Your task to perform on an android device: check android version Image 0: 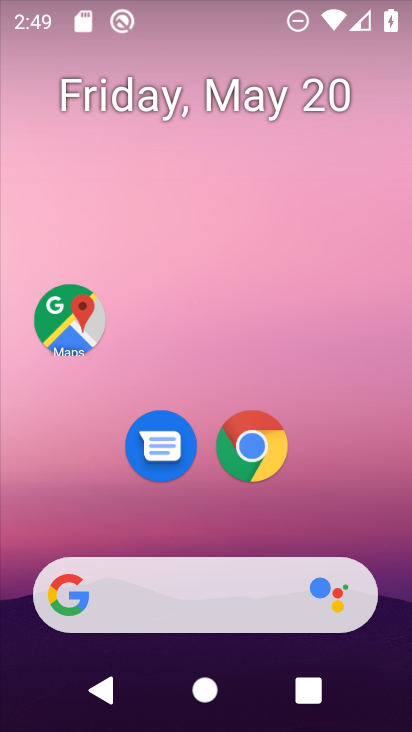
Step 0: drag from (368, 527) to (310, 0)
Your task to perform on an android device: check android version Image 1: 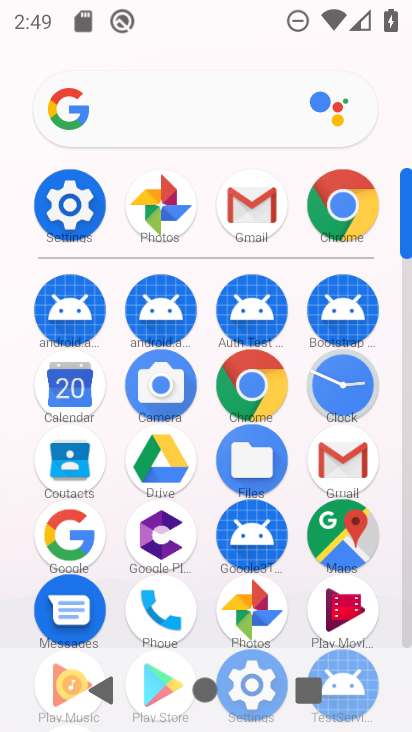
Step 1: click (64, 206)
Your task to perform on an android device: check android version Image 2: 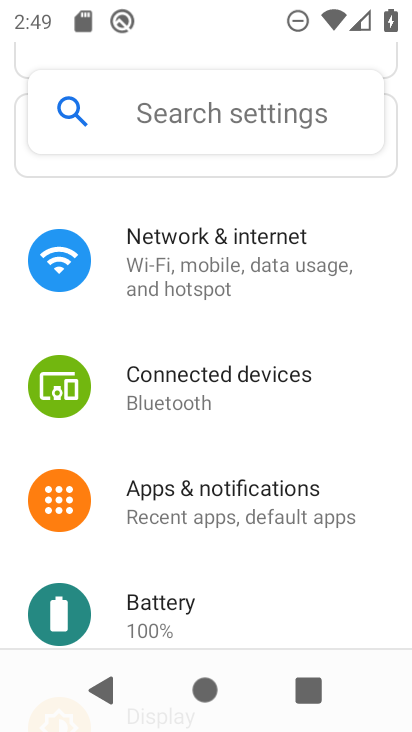
Step 2: drag from (323, 568) to (253, 86)
Your task to perform on an android device: check android version Image 3: 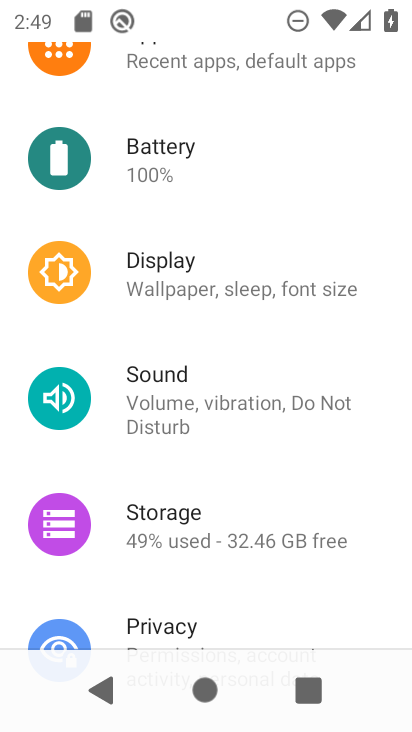
Step 3: drag from (321, 460) to (259, 72)
Your task to perform on an android device: check android version Image 4: 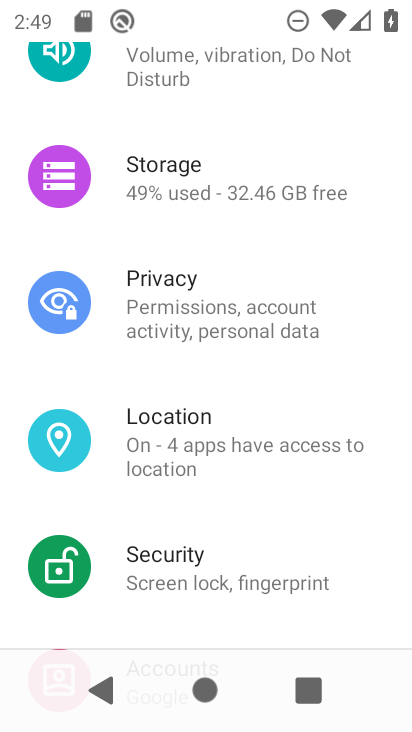
Step 4: drag from (309, 474) to (239, 72)
Your task to perform on an android device: check android version Image 5: 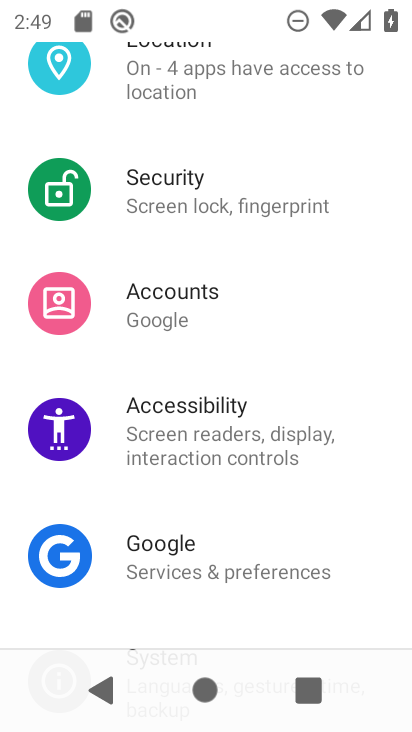
Step 5: drag from (303, 519) to (241, 104)
Your task to perform on an android device: check android version Image 6: 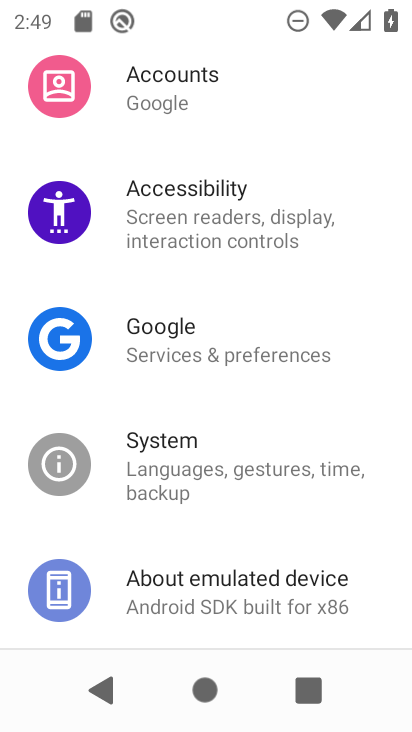
Step 6: click (213, 594)
Your task to perform on an android device: check android version Image 7: 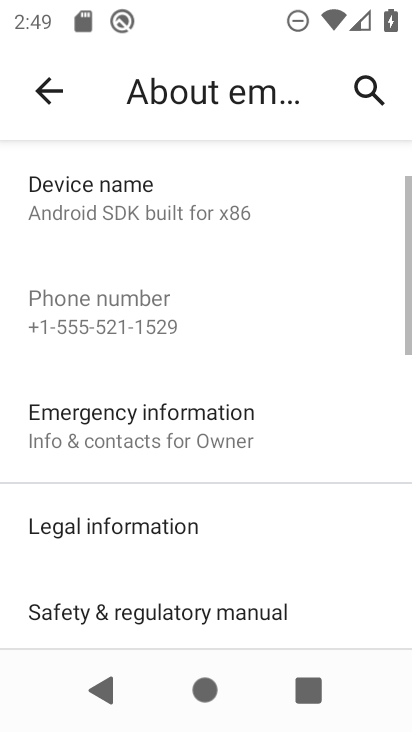
Step 7: drag from (284, 581) to (255, 107)
Your task to perform on an android device: check android version Image 8: 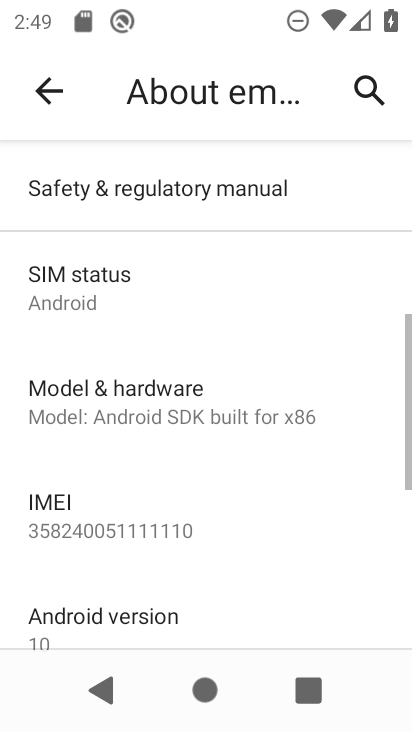
Step 8: drag from (265, 551) to (220, 235)
Your task to perform on an android device: check android version Image 9: 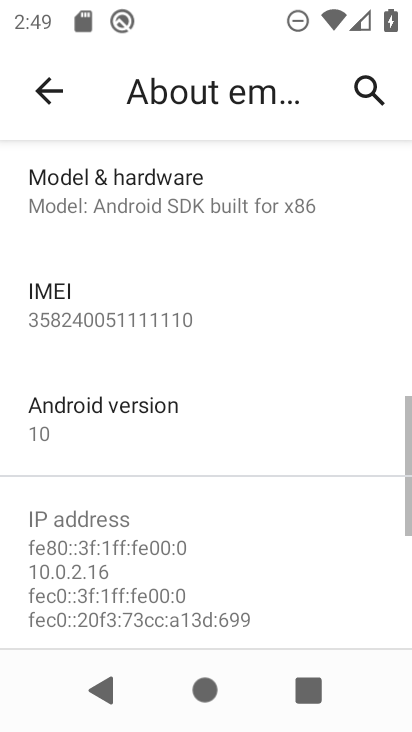
Step 9: click (58, 420)
Your task to perform on an android device: check android version Image 10: 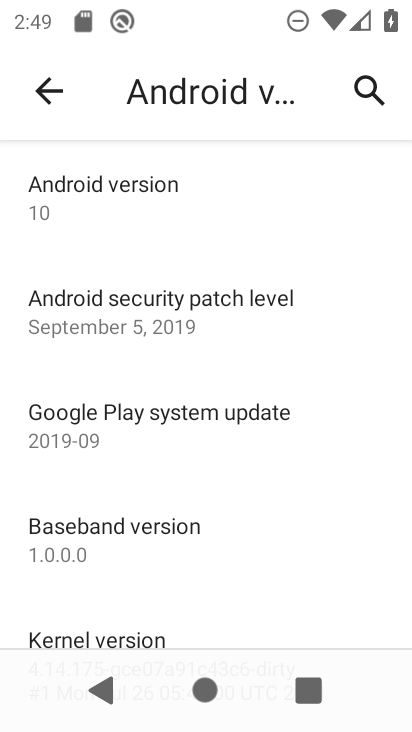
Step 10: task complete